Your task to perform on an android device: find which apps use the phone's location Image 0: 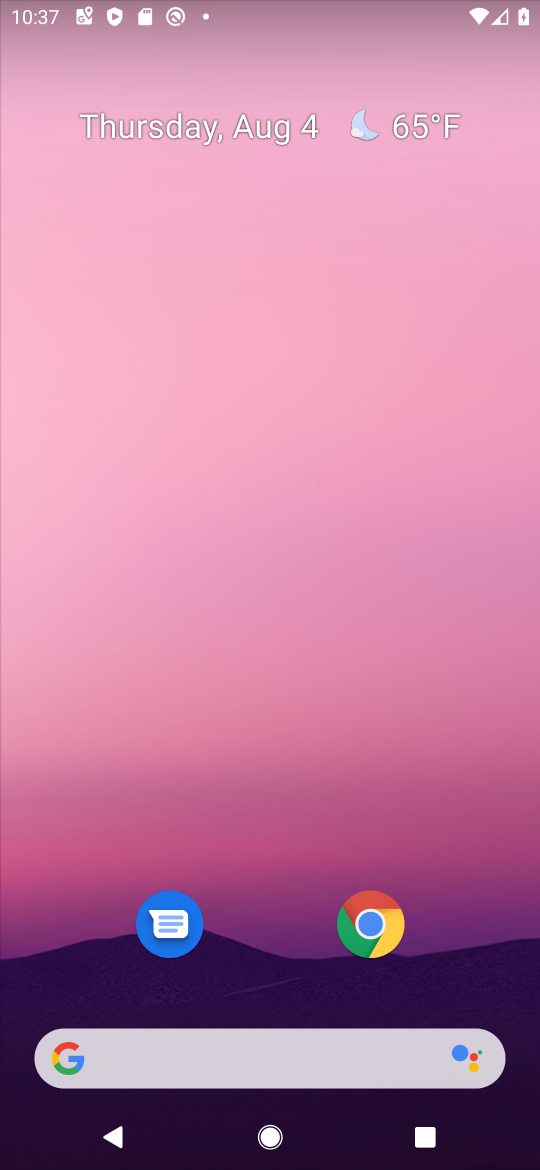
Step 0: drag from (279, 831) to (353, 546)
Your task to perform on an android device: find which apps use the phone's location Image 1: 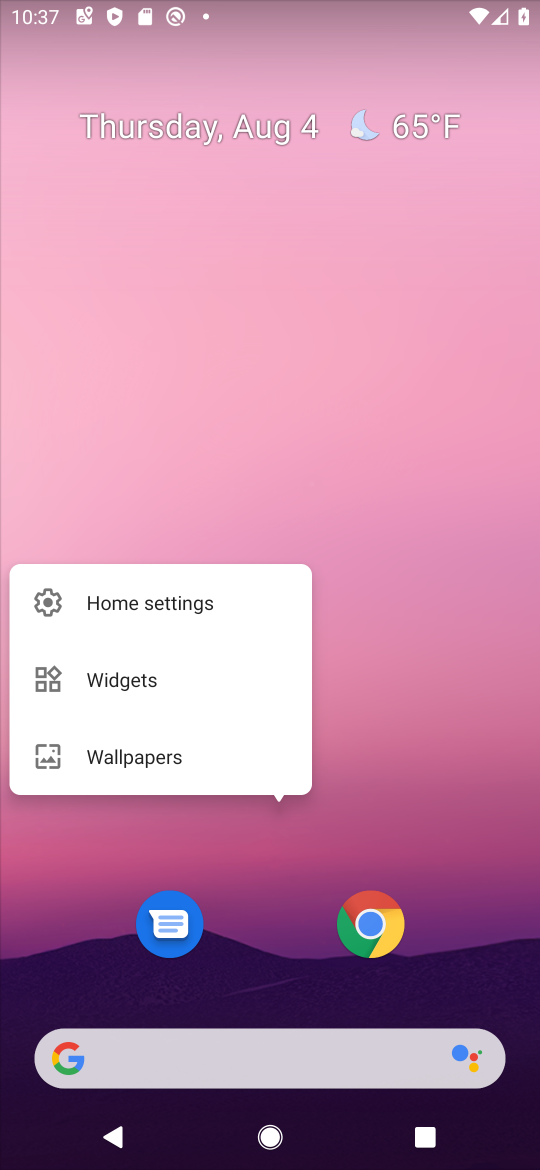
Step 1: click (389, 715)
Your task to perform on an android device: find which apps use the phone's location Image 2: 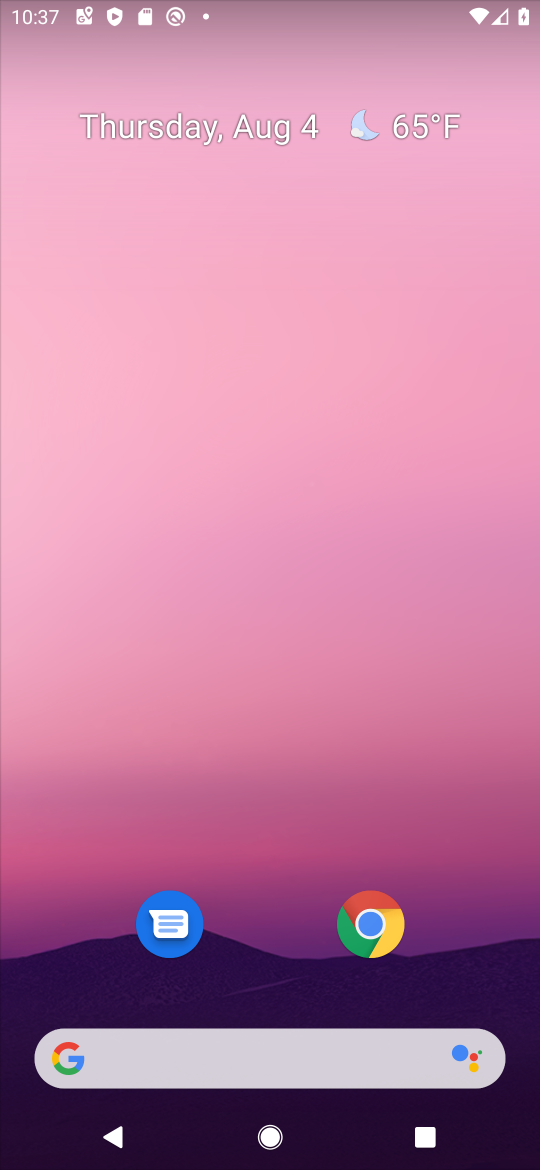
Step 2: drag from (304, 771) to (383, 171)
Your task to perform on an android device: find which apps use the phone's location Image 3: 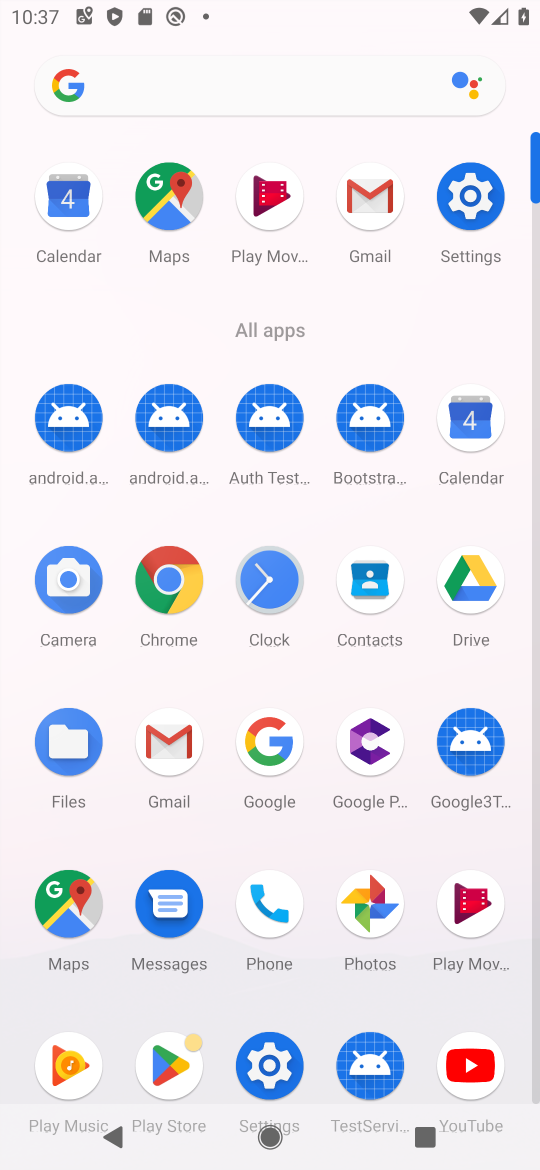
Step 3: click (460, 222)
Your task to perform on an android device: find which apps use the phone's location Image 4: 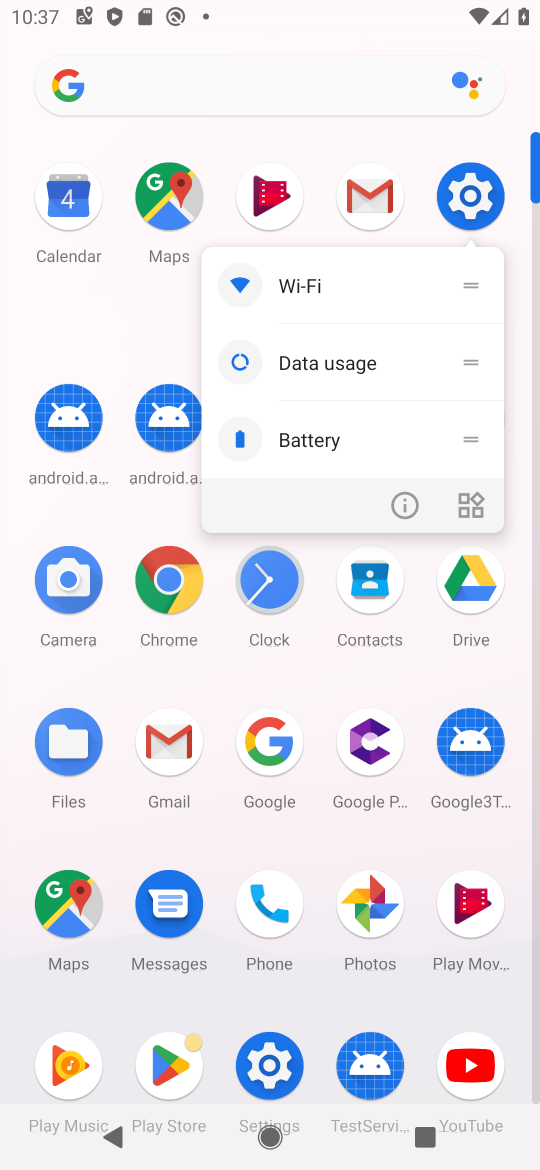
Step 4: click (472, 209)
Your task to perform on an android device: find which apps use the phone's location Image 5: 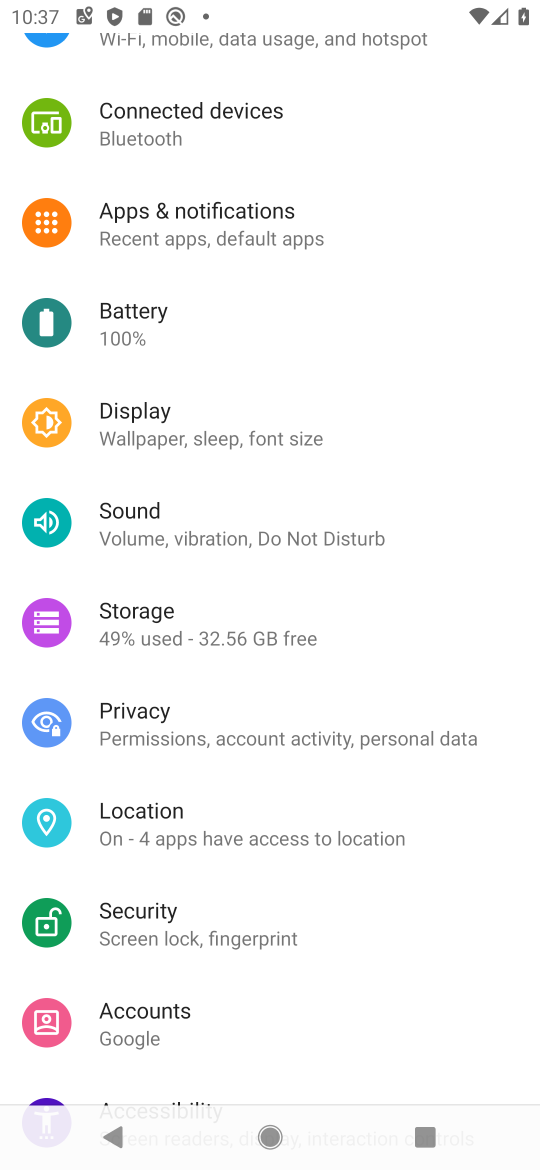
Step 5: click (137, 812)
Your task to perform on an android device: find which apps use the phone's location Image 6: 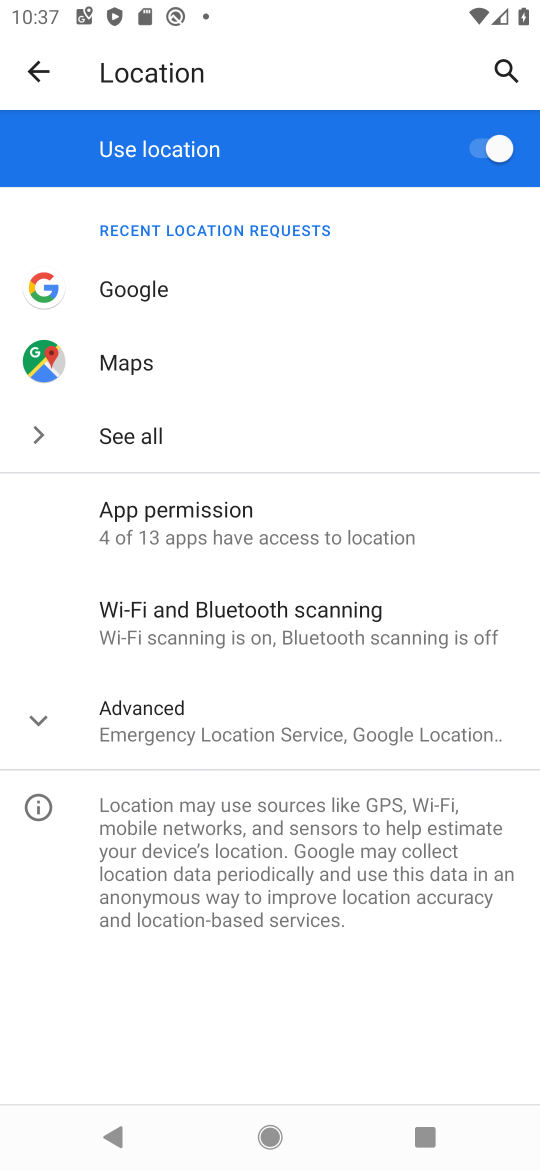
Step 6: task complete